Your task to perform on an android device: Open Yahoo.com Image 0: 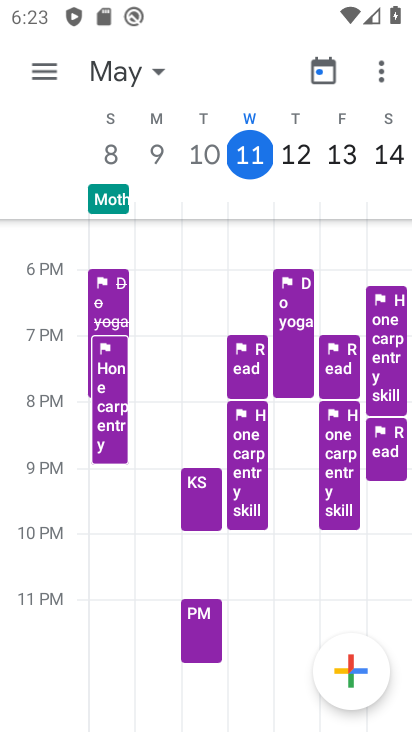
Step 0: press home button
Your task to perform on an android device: Open Yahoo.com Image 1: 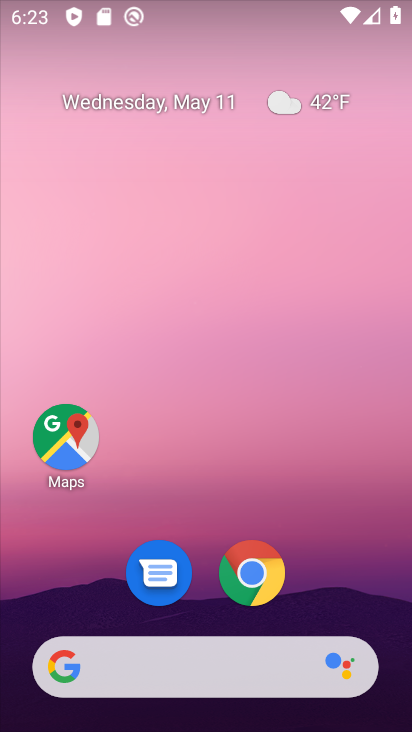
Step 1: click (267, 594)
Your task to perform on an android device: Open Yahoo.com Image 2: 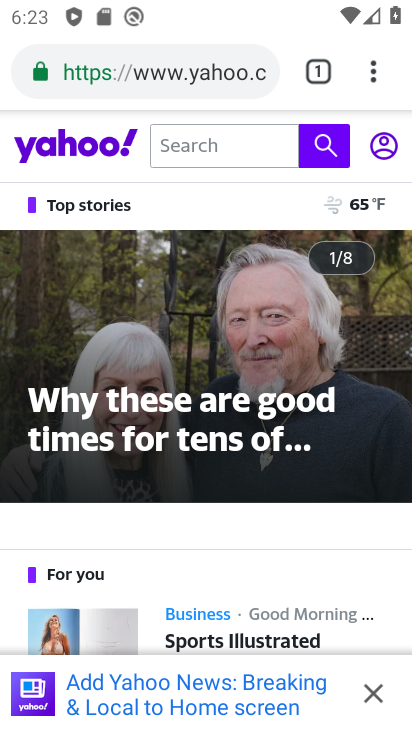
Step 2: task complete